Your task to perform on an android device: change notifications settings Image 0: 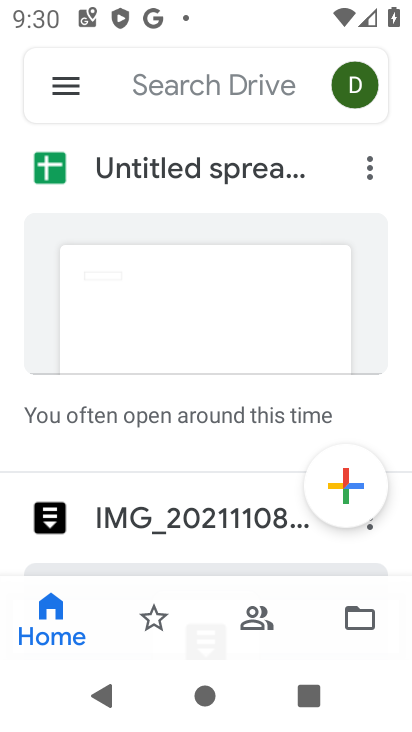
Step 0: press home button
Your task to perform on an android device: change notifications settings Image 1: 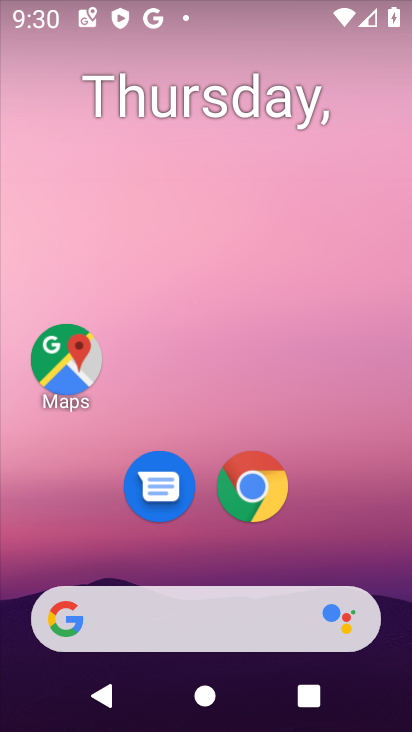
Step 1: drag from (207, 546) to (203, 0)
Your task to perform on an android device: change notifications settings Image 2: 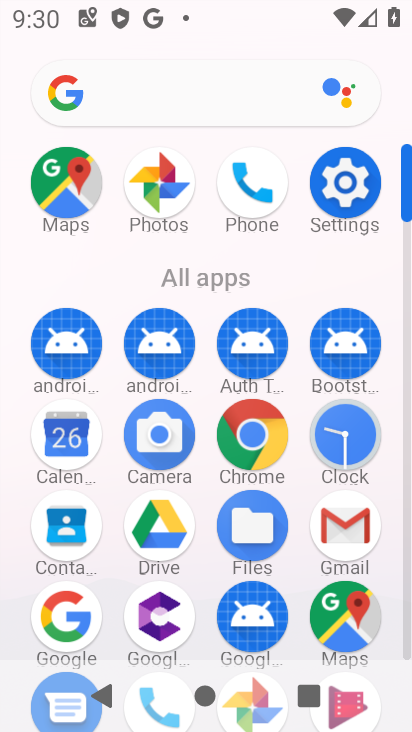
Step 2: click (343, 192)
Your task to perform on an android device: change notifications settings Image 3: 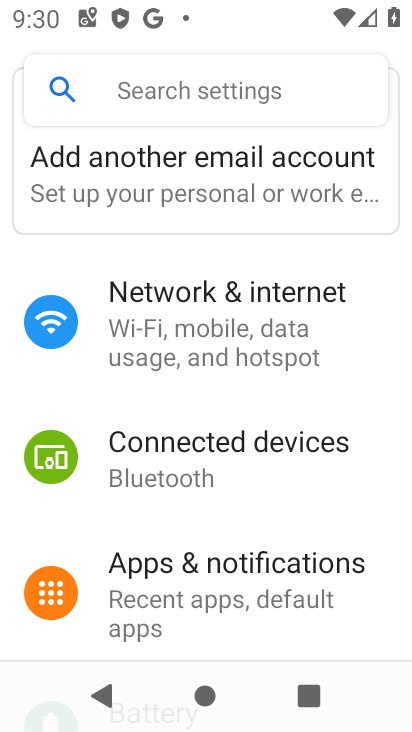
Step 3: click (247, 567)
Your task to perform on an android device: change notifications settings Image 4: 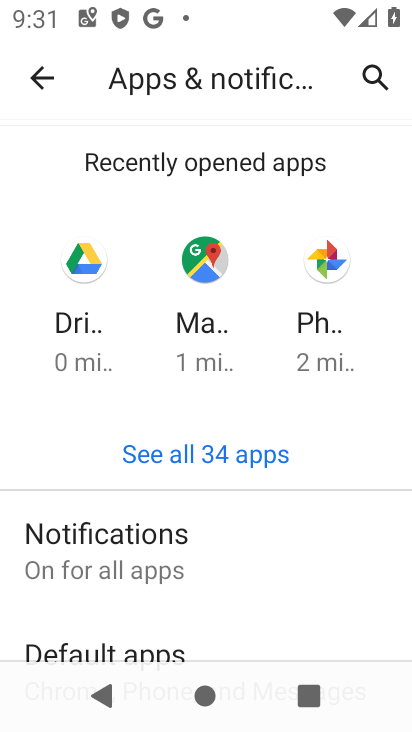
Step 4: click (126, 549)
Your task to perform on an android device: change notifications settings Image 5: 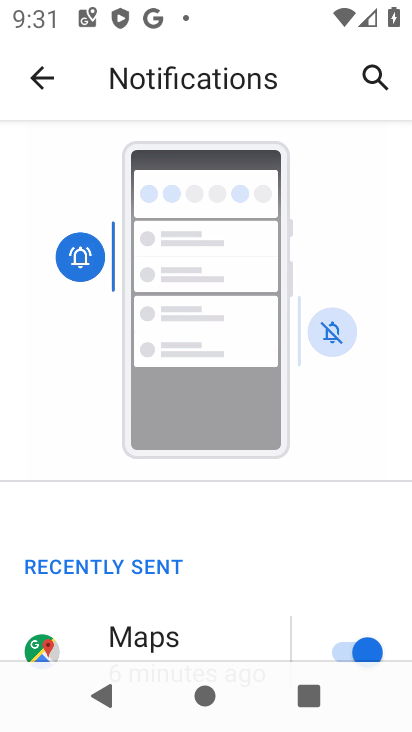
Step 5: task complete